Your task to perform on an android device: Do I have any events this weekend? Image 0: 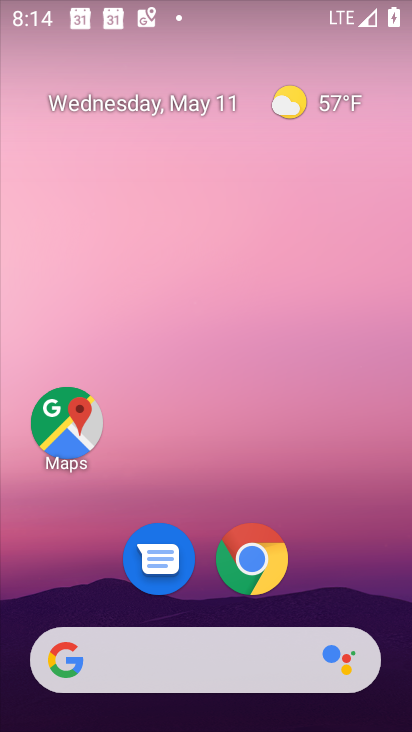
Step 0: press home button
Your task to perform on an android device: Do I have any events this weekend? Image 1: 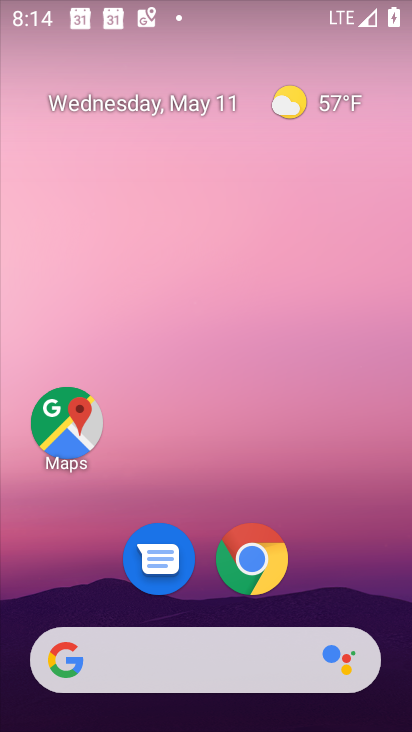
Step 1: drag from (347, 546) to (360, 22)
Your task to perform on an android device: Do I have any events this weekend? Image 2: 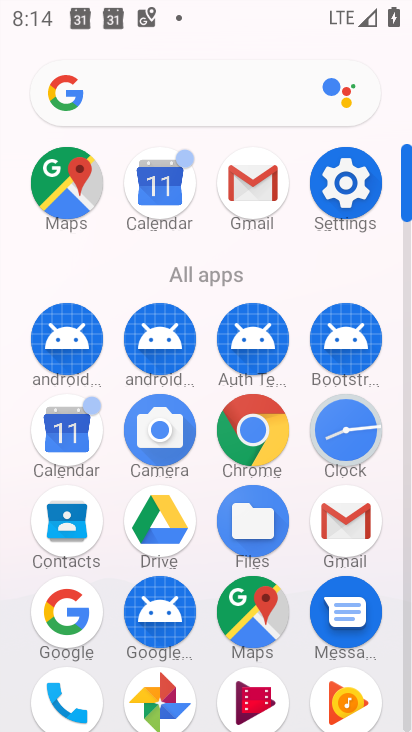
Step 2: click (53, 440)
Your task to perform on an android device: Do I have any events this weekend? Image 3: 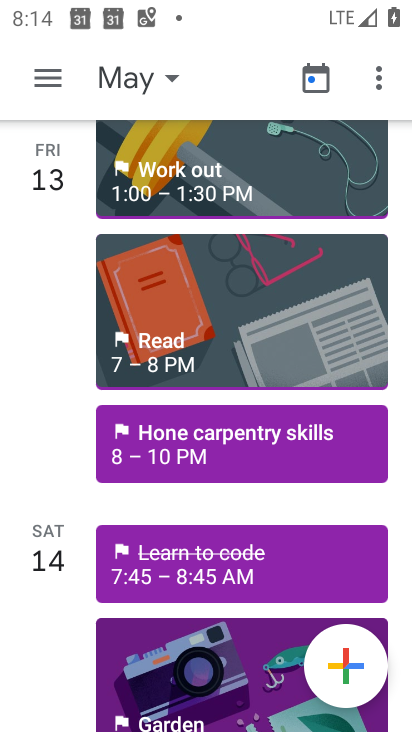
Step 3: task complete